Your task to perform on an android device: View the shopping cart on costco. Image 0: 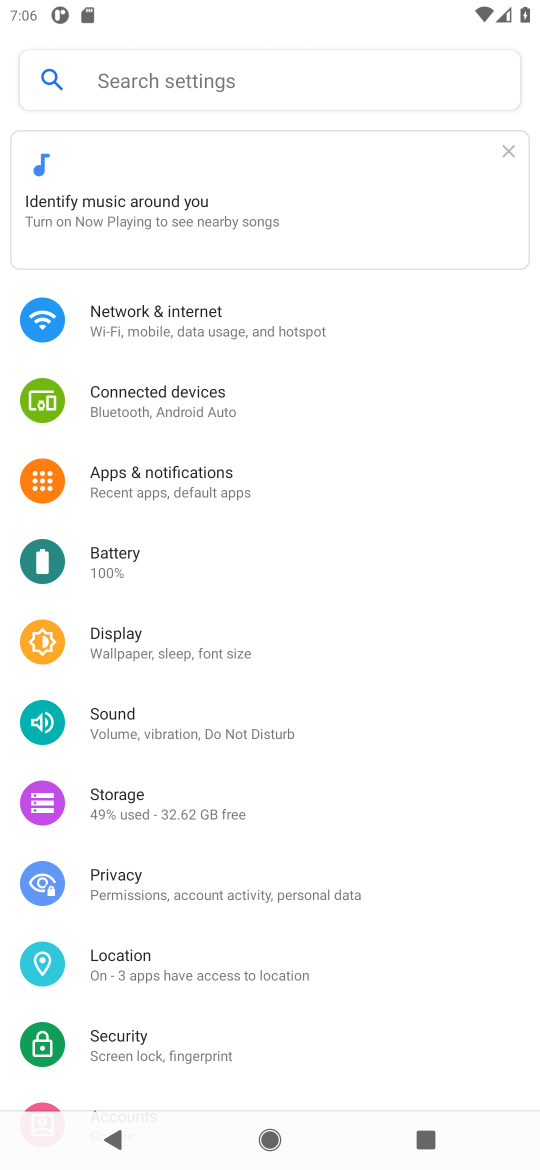
Step 0: press home button
Your task to perform on an android device: View the shopping cart on costco. Image 1: 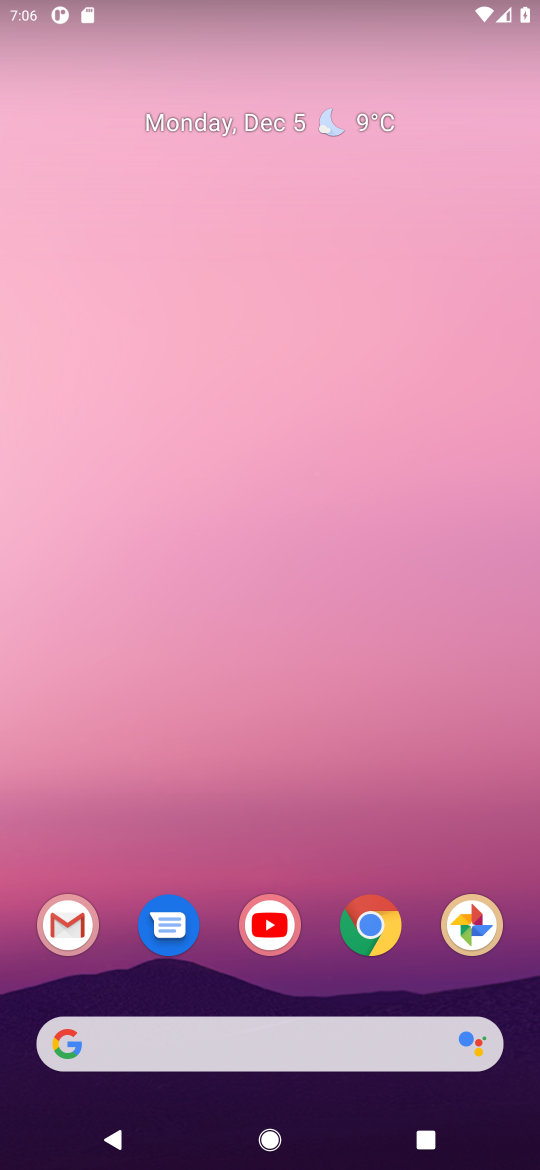
Step 1: click (380, 939)
Your task to perform on an android device: View the shopping cart on costco. Image 2: 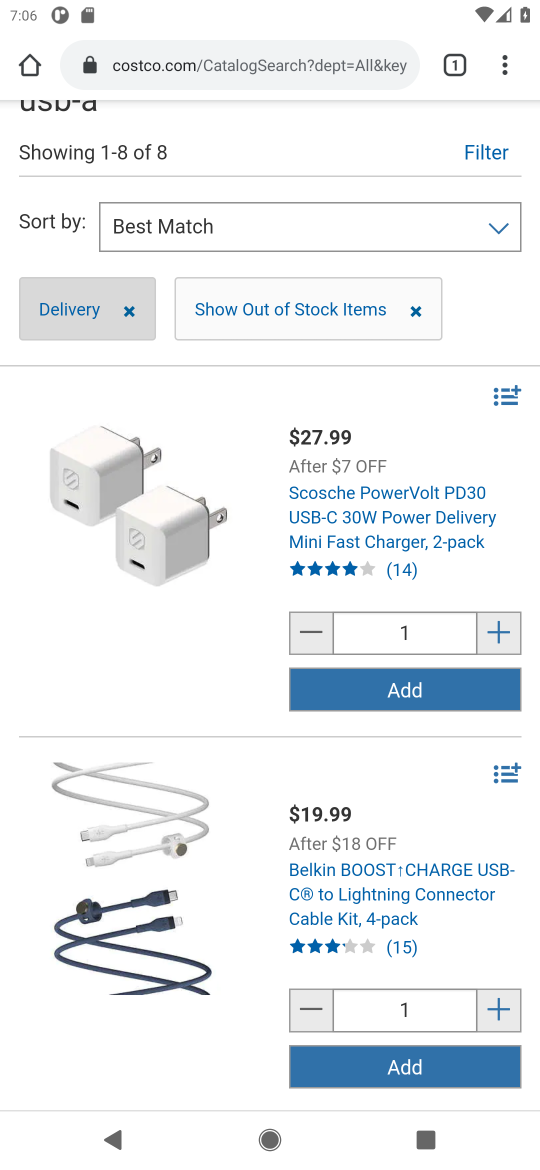
Step 2: drag from (272, 148) to (272, 432)
Your task to perform on an android device: View the shopping cart on costco. Image 3: 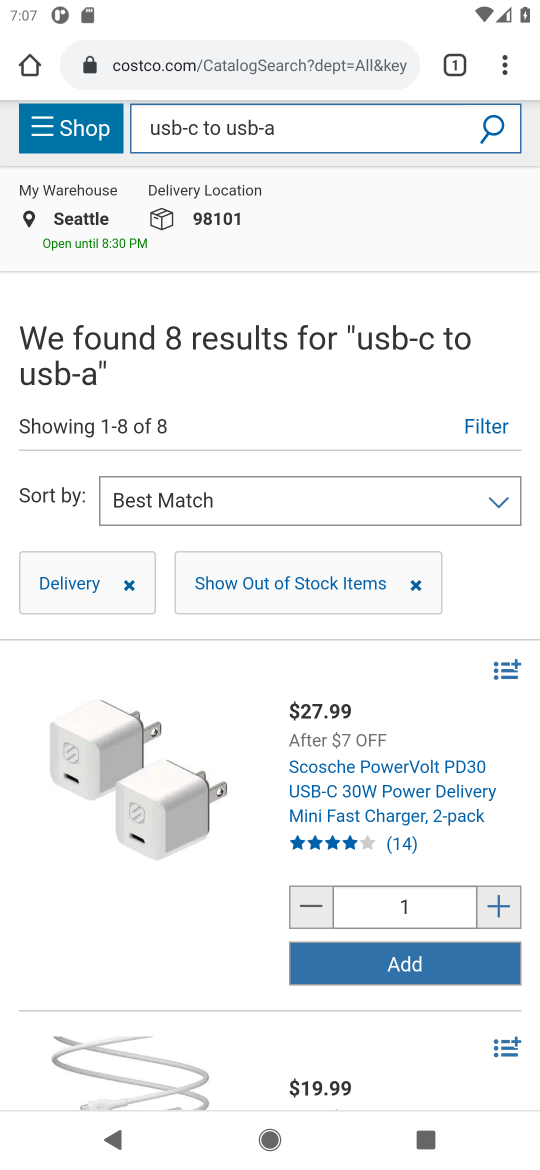
Step 3: drag from (404, 259) to (356, 465)
Your task to perform on an android device: View the shopping cart on costco. Image 4: 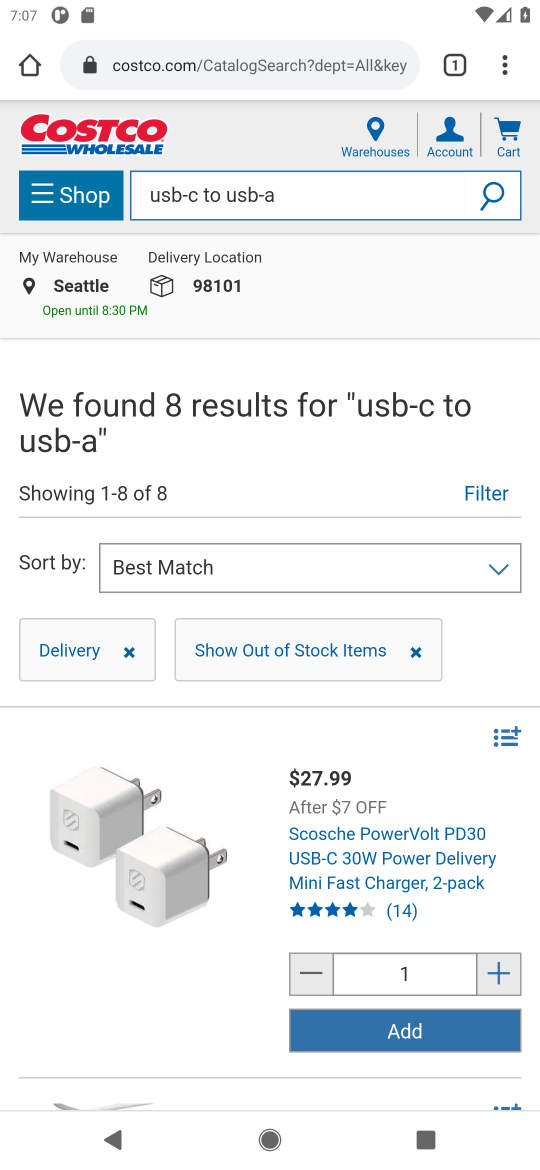
Step 4: click (500, 140)
Your task to perform on an android device: View the shopping cart on costco. Image 5: 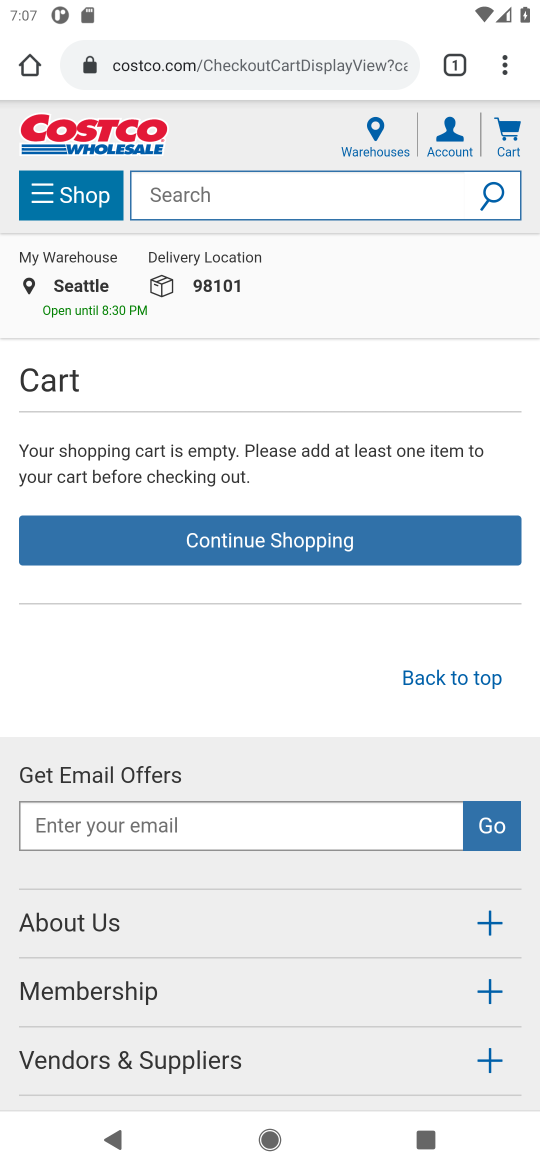
Step 5: task complete